Your task to perform on an android device: Show me popular videos on Youtube Image 0: 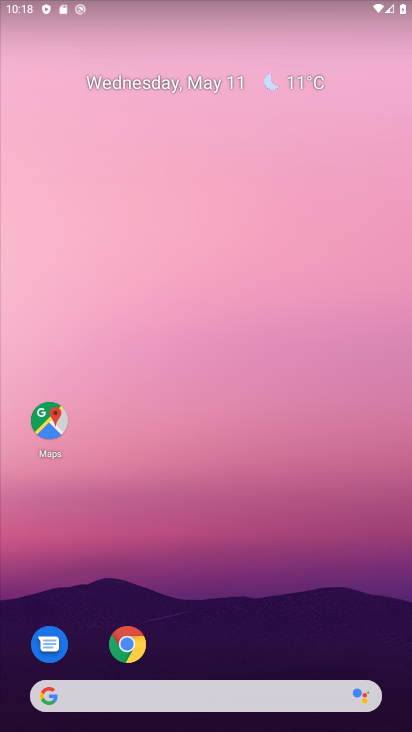
Step 0: drag from (292, 263) to (299, 37)
Your task to perform on an android device: Show me popular videos on Youtube Image 1: 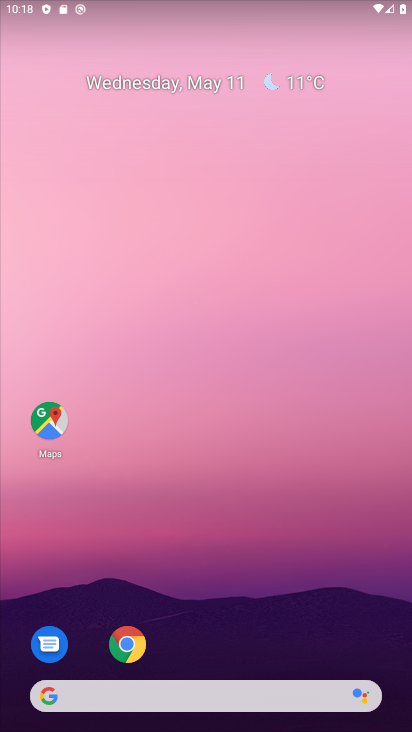
Step 1: drag from (280, 494) to (283, 92)
Your task to perform on an android device: Show me popular videos on Youtube Image 2: 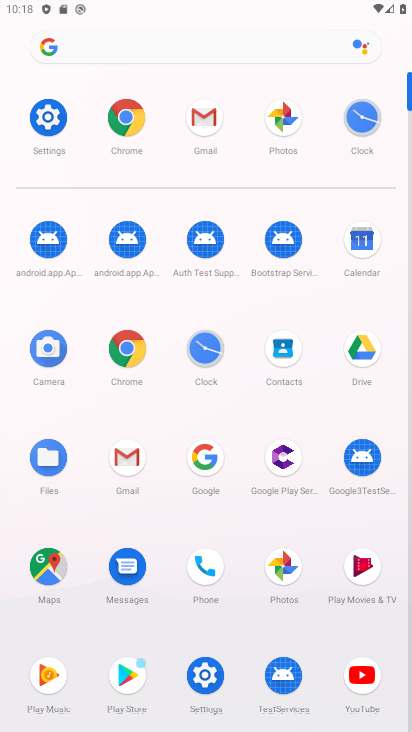
Step 2: click (360, 680)
Your task to perform on an android device: Show me popular videos on Youtube Image 3: 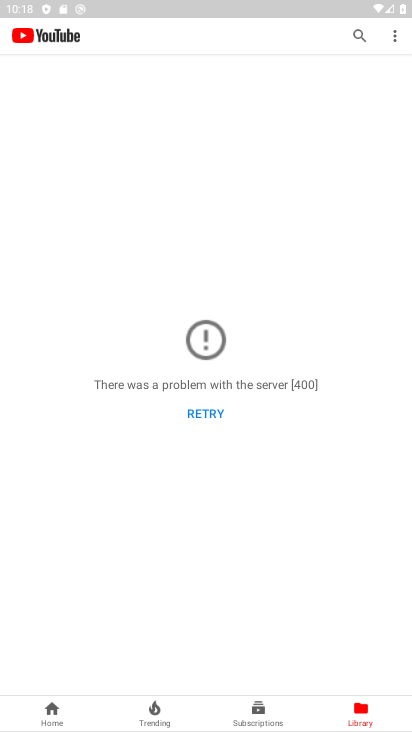
Step 3: click (41, 713)
Your task to perform on an android device: Show me popular videos on Youtube Image 4: 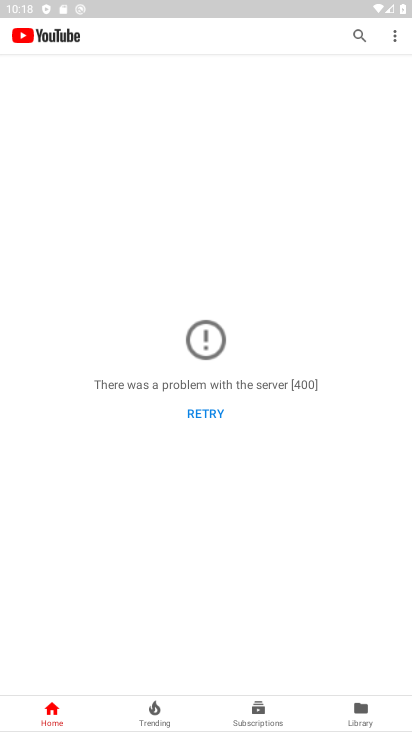
Step 4: task complete